Your task to perform on an android device: open device folders in google photos Image 0: 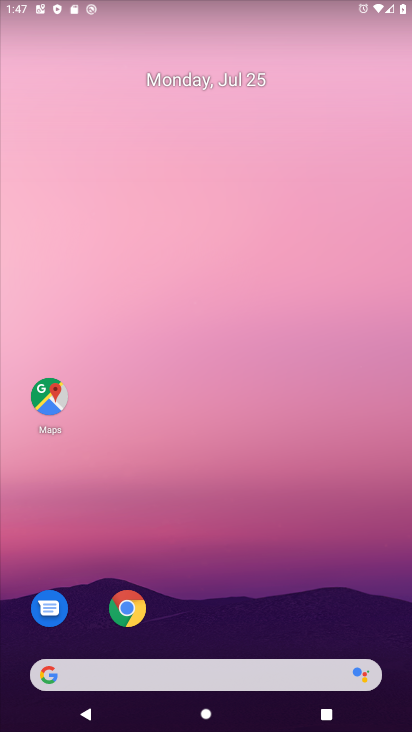
Step 0: drag from (273, 600) to (236, 51)
Your task to perform on an android device: open device folders in google photos Image 1: 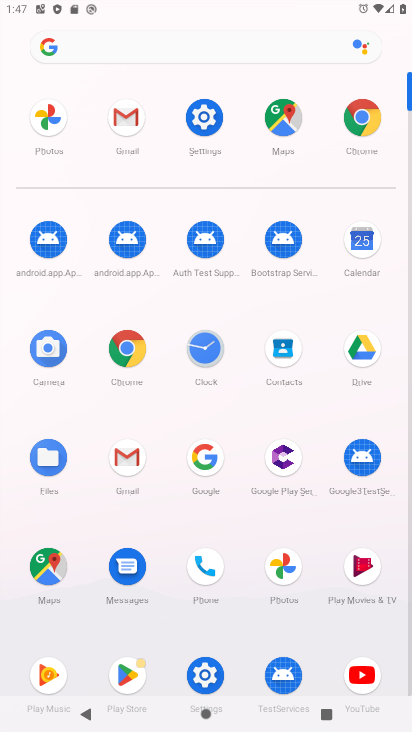
Step 1: click (274, 561)
Your task to perform on an android device: open device folders in google photos Image 2: 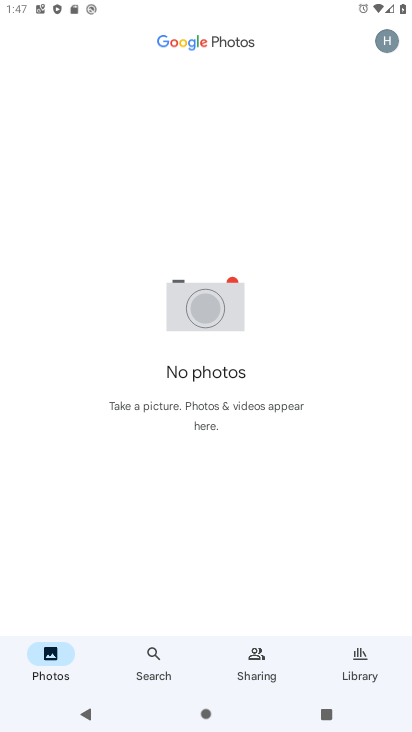
Step 2: click (391, 41)
Your task to perform on an android device: open device folders in google photos Image 3: 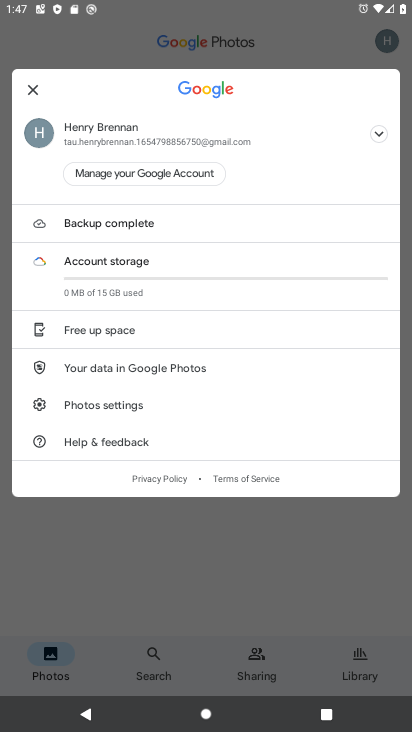
Step 3: click (230, 594)
Your task to perform on an android device: open device folders in google photos Image 4: 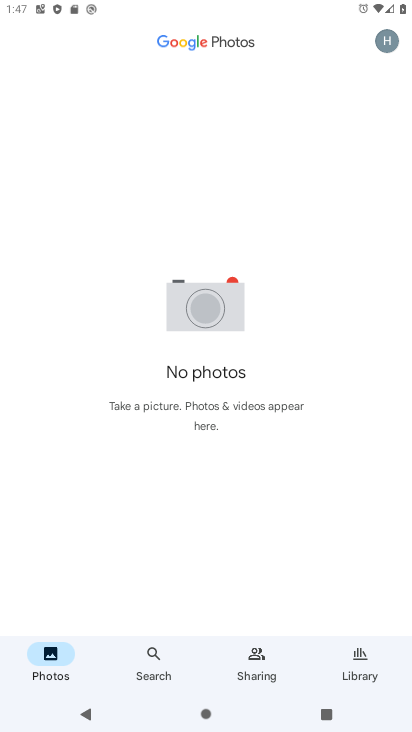
Step 4: click (365, 660)
Your task to perform on an android device: open device folders in google photos Image 5: 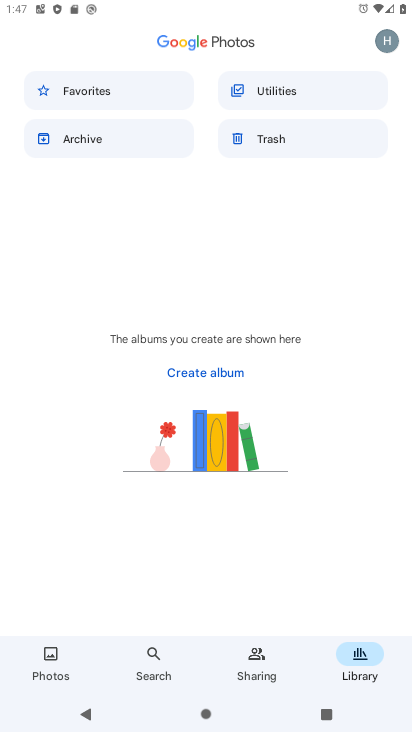
Step 5: click (255, 672)
Your task to perform on an android device: open device folders in google photos Image 6: 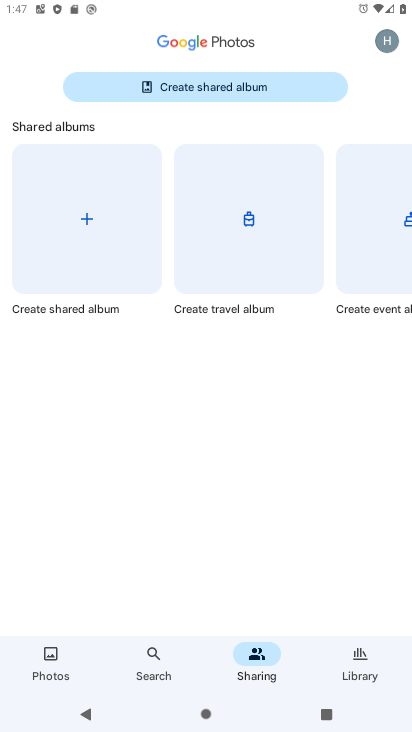
Step 6: click (360, 676)
Your task to perform on an android device: open device folders in google photos Image 7: 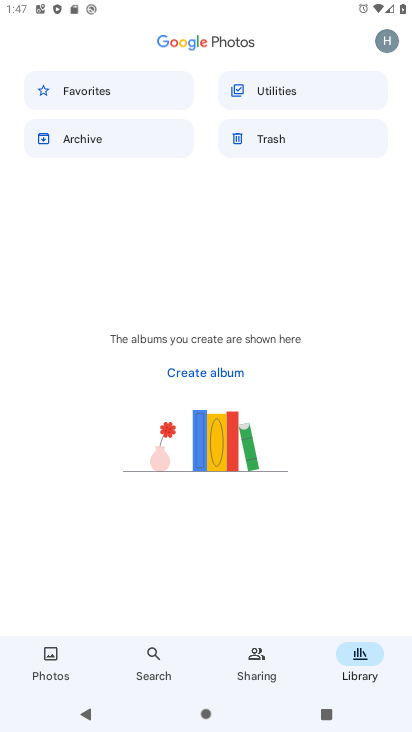
Step 7: click (313, 93)
Your task to perform on an android device: open device folders in google photos Image 8: 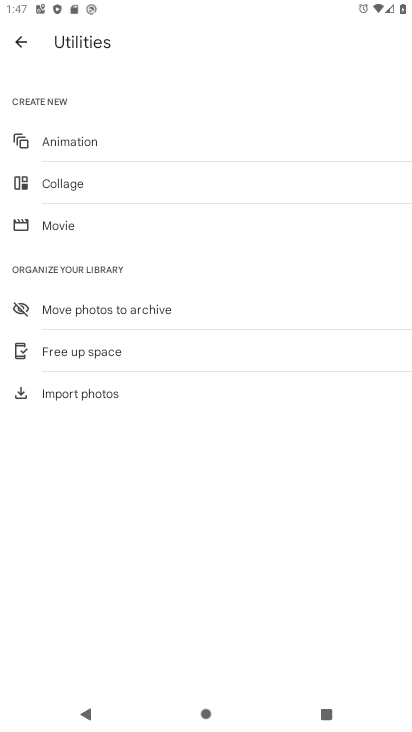
Step 8: click (23, 46)
Your task to perform on an android device: open device folders in google photos Image 9: 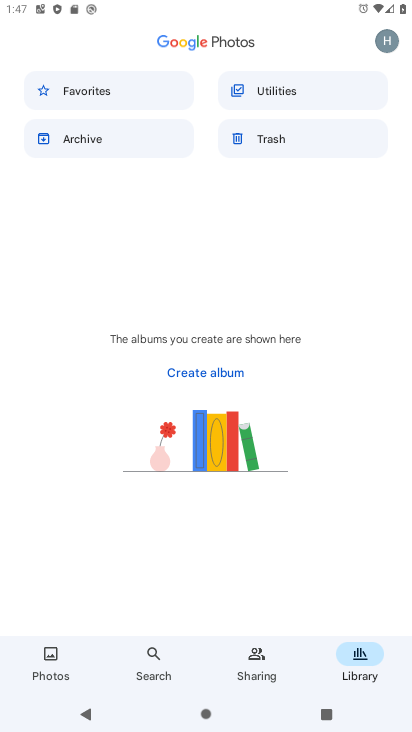
Step 9: click (52, 646)
Your task to perform on an android device: open device folders in google photos Image 10: 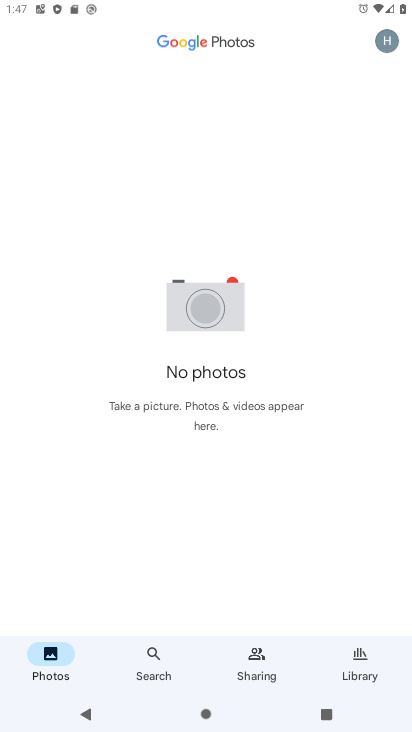
Step 10: click (396, 44)
Your task to perform on an android device: open device folders in google photos Image 11: 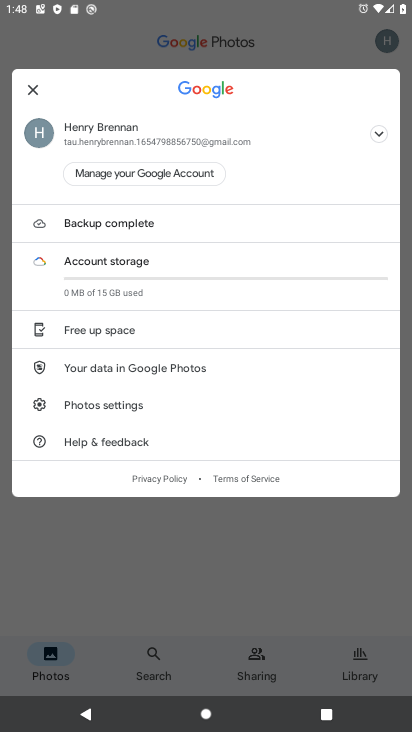
Step 11: click (126, 403)
Your task to perform on an android device: open device folders in google photos Image 12: 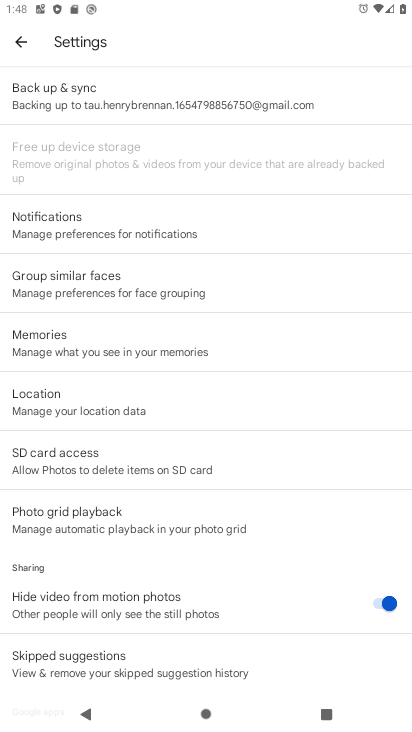
Step 12: click (29, 39)
Your task to perform on an android device: open device folders in google photos Image 13: 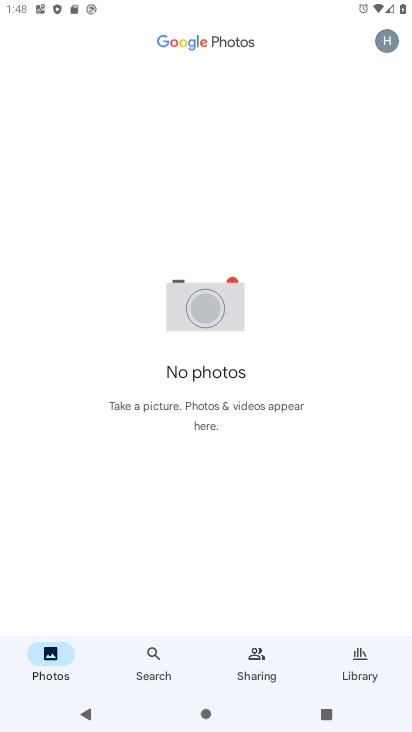
Step 13: task complete